Your task to perform on an android device: Open eBay Image 0: 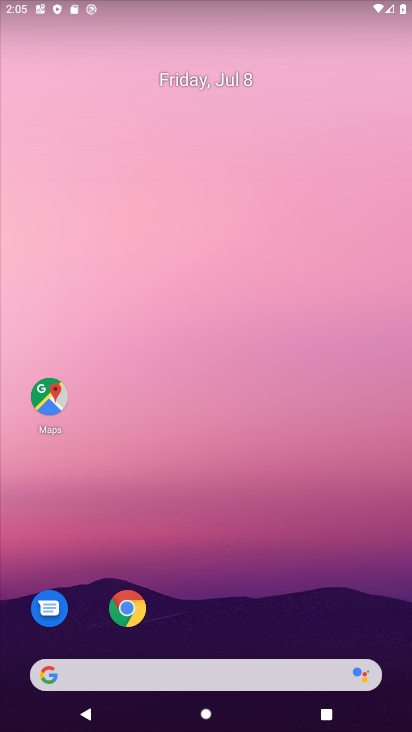
Step 0: drag from (300, 678) to (407, 97)
Your task to perform on an android device: Open eBay Image 1: 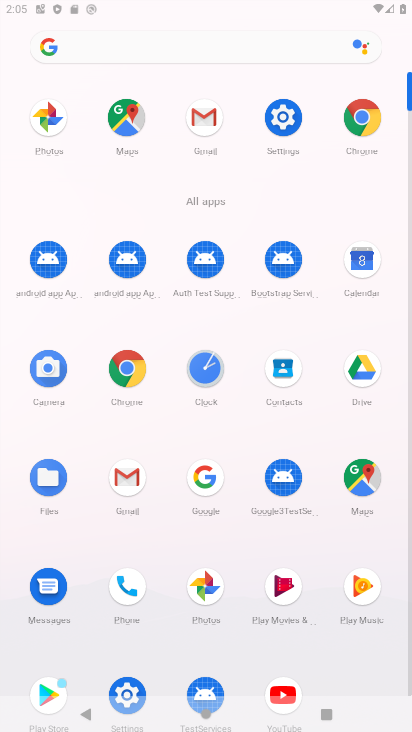
Step 1: click (131, 357)
Your task to perform on an android device: Open eBay Image 2: 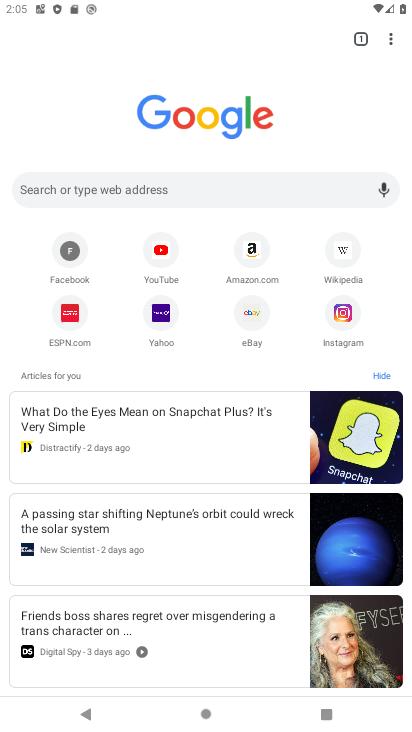
Step 2: click (255, 318)
Your task to perform on an android device: Open eBay Image 3: 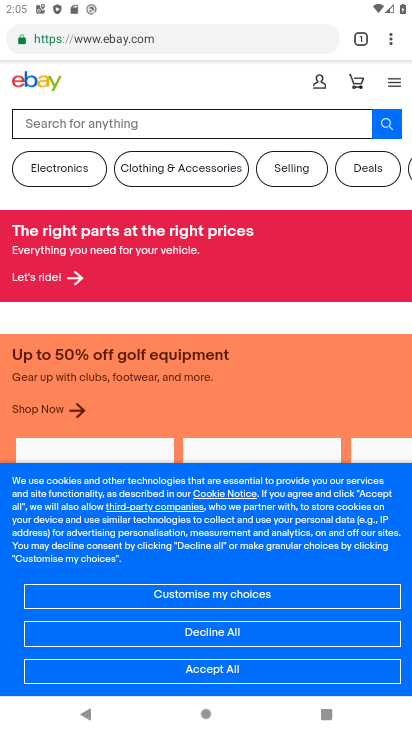
Step 3: task complete